Your task to perform on an android device: uninstall "Nova Launcher" Image 0: 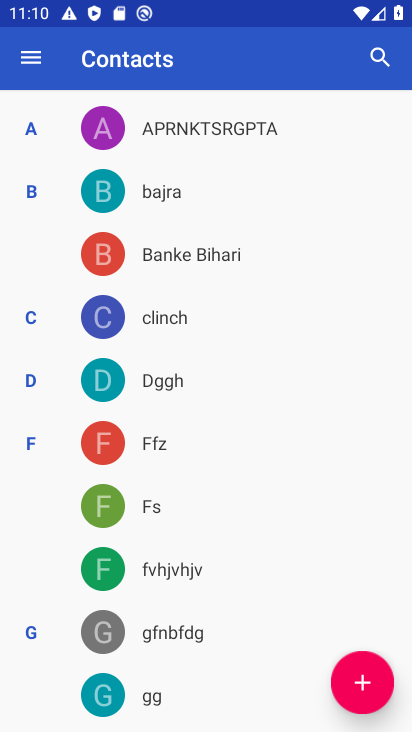
Step 0: press home button
Your task to perform on an android device: uninstall "Nova Launcher" Image 1: 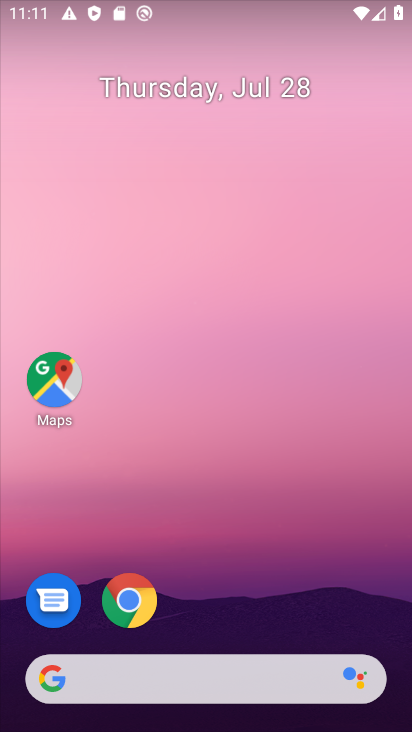
Step 1: drag from (122, 667) to (289, 118)
Your task to perform on an android device: uninstall "Nova Launcher" Image 2: 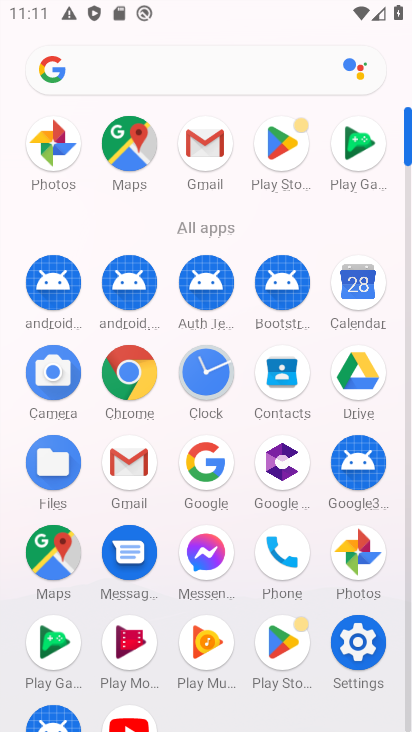
Step 2: click (284, 155)
Your task to perform on an android device: uninstall "Nova Launcher" Image 3: 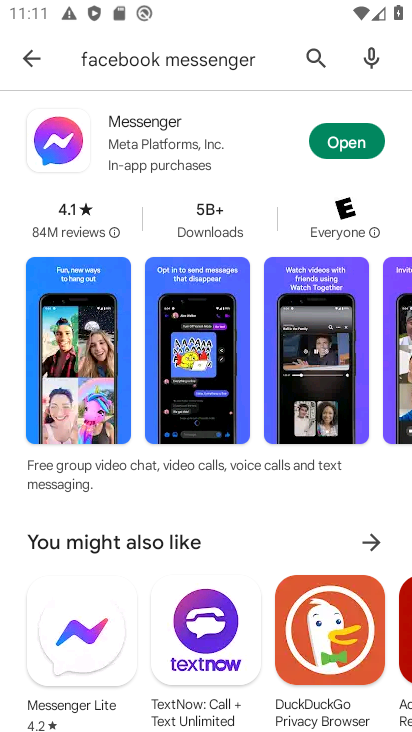
Step 3: click (318, 48)
Your task to perform on an android device: uninstall "Nova Launcher" Image 4: 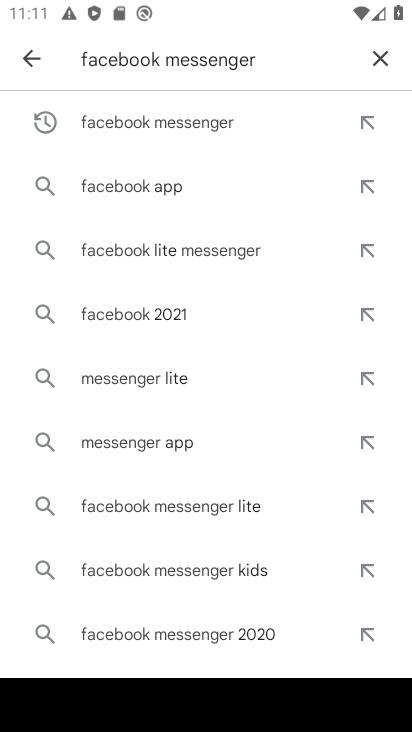
Step 4: click (382, 60)
Your task to perform on an android device: uninstall "Nova Launcher" Image 5: 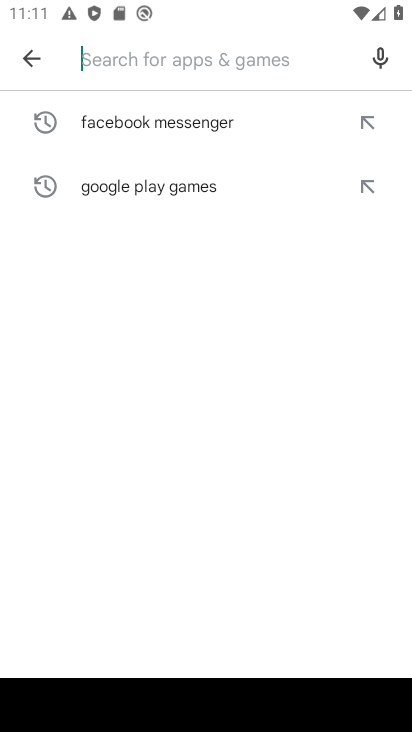
Step 5: type "Nova Launcher"
Your task to perform on an android device: uninstall "Nova Launcher" Image 6: 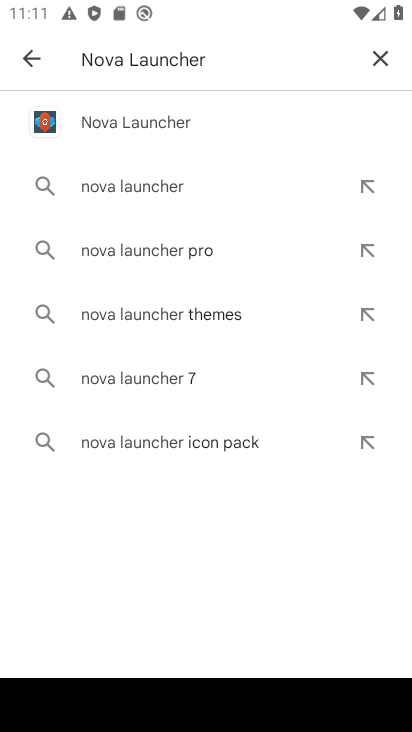
Step 6: click (146, 121)
Your task to perform on an android device: uninstall "Nova Launcher" Image 7: 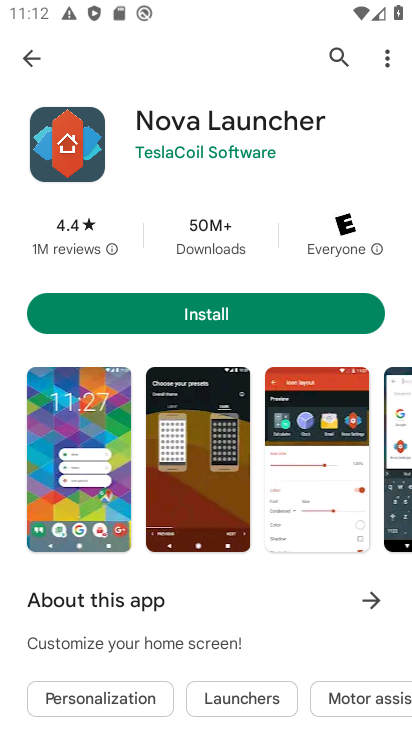
Step 7: task complete